Your task to perform on an android device: set the timer Image 0: 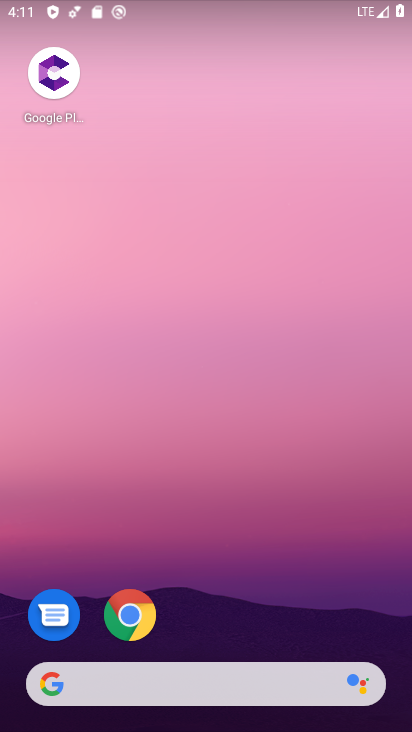
Step 0: drag from (261, 480) to (247, 36)
Your task to perform on an android device: set the timer Image 1: 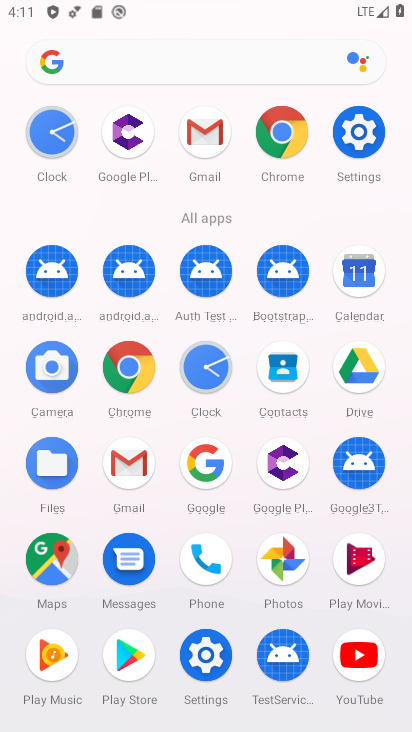
Step 1: click (205, 364)
Your task to perform on an android device: set the timer Image 2: 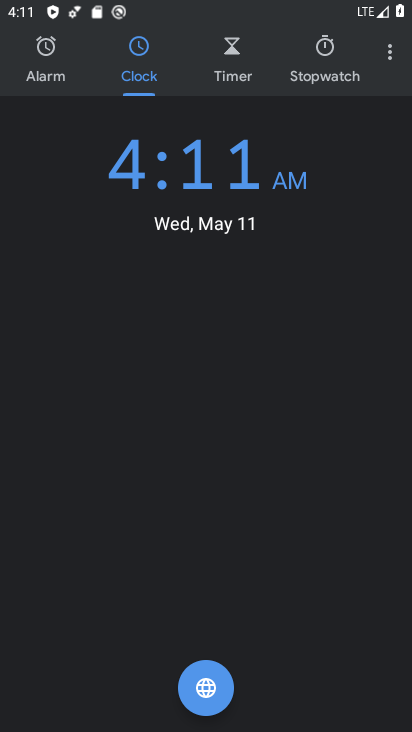
Step 2: drag from (387, 50) to (292, 97)
Your task to perform on an android device: set the timer Image 3: 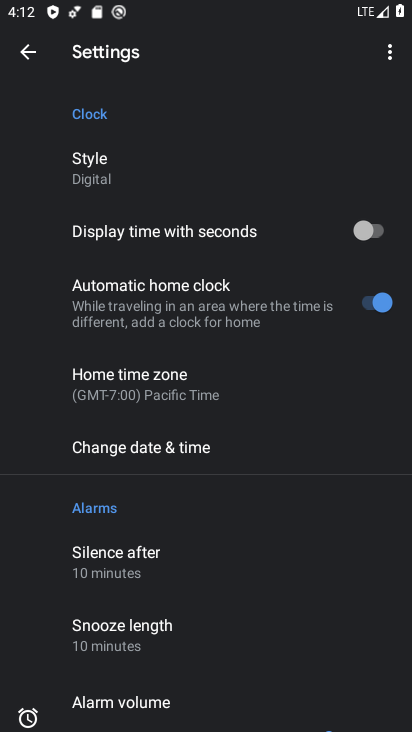
Step 3: drag from (257, 510) to (239, 125)
Your task to perform on an android device: set the timer Image 4: 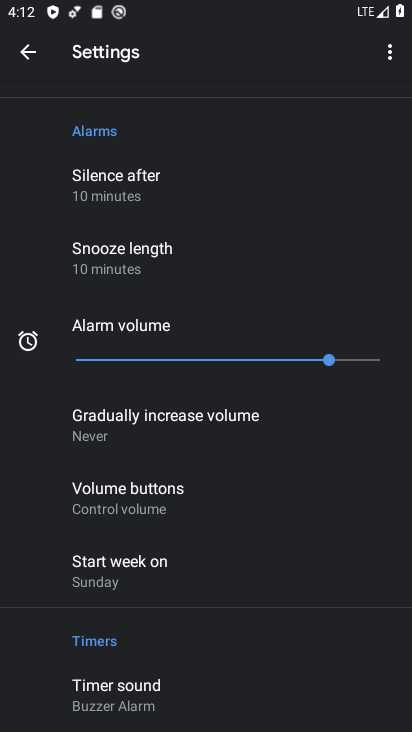
Step 4: drag from (255, 493) to (277, 77)
Your task to perform on an android device: set the timer Image 5: 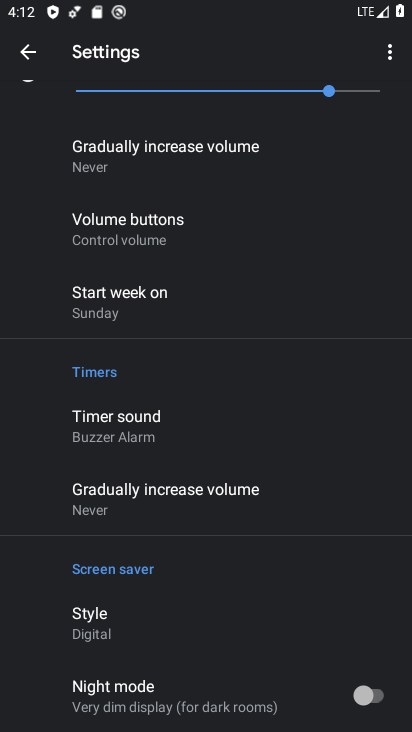
Step 5: drag from (253, 524) to (274, 94)
Your task to perform on an android device: set the timer Image 6: 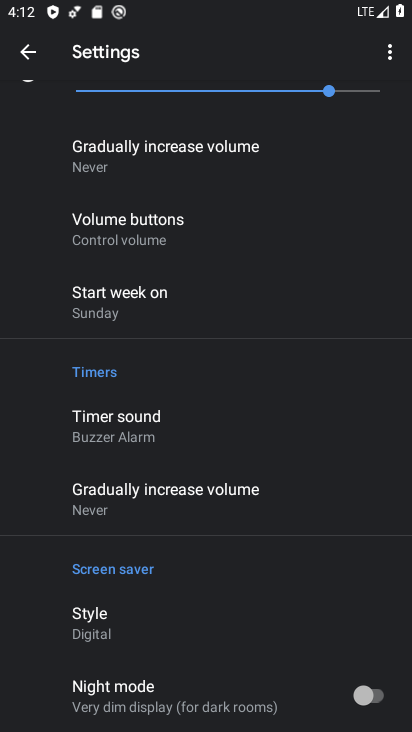
Step 6: drag from (275, 222) to (273, 579)
Your task to perform on an android device: set the timer Image 7: 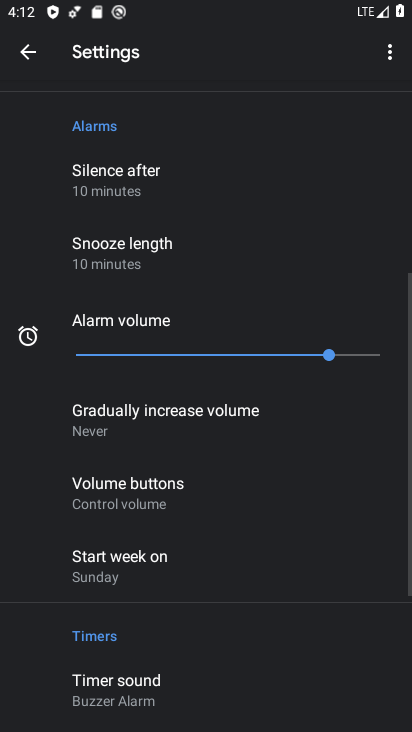
Step 7: drag from (259, 190) to (280, 574)
Your task to perform on an android device: set the timer Image 8: 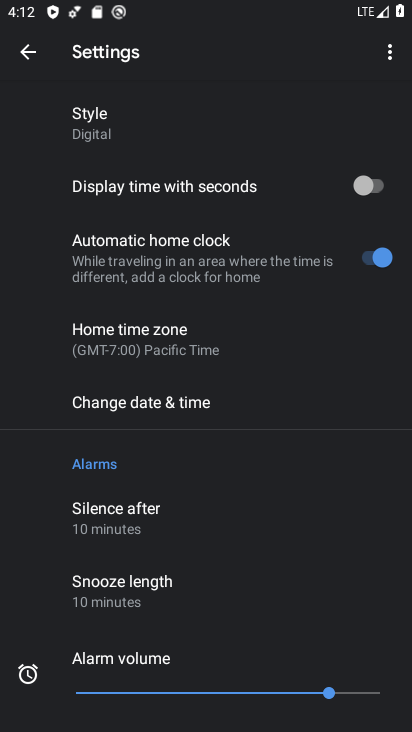
Step 8: click (205, 404)
Your task to perform on an android device: set the timer Image 9: 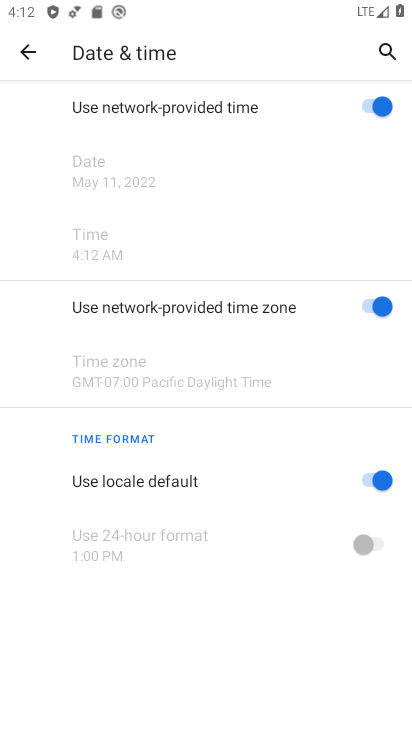
Step 9: click (42, 47)
Your task to perform on an android device: set the timer Image 10: 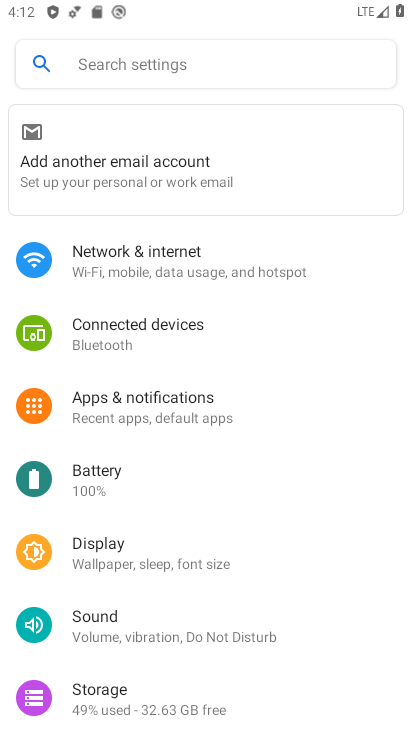
Step 10: press back button
Your task to perform on an android device: set the timer Image 11: 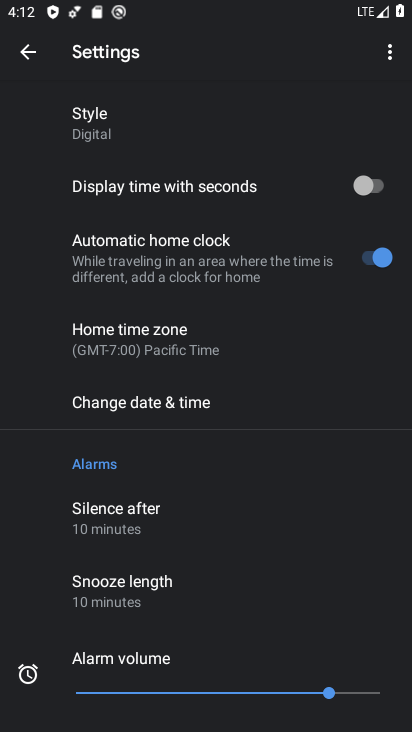
Step 11: press back button
Your task to perform on an android device: set the timer Image 12: 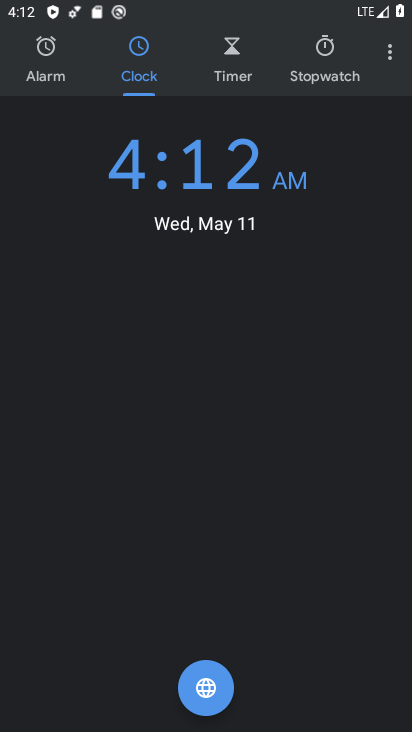
Step 12: click (246, 66)
Your task to perform on an android device: set the timer Image 13: 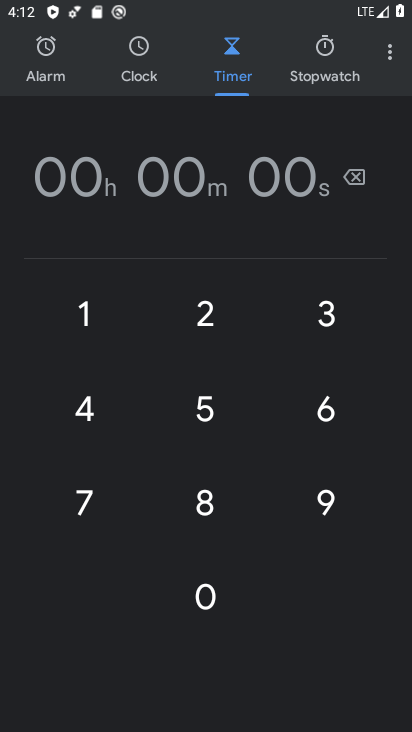
Step 13: click (201, 313)
Your task to perform on an android device: set the timer Image 14: 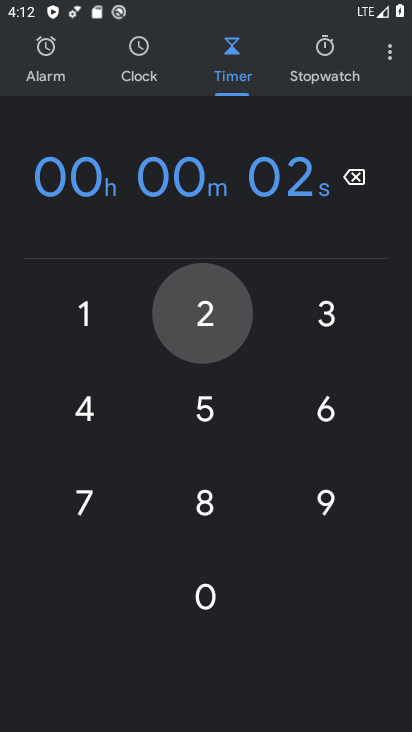
Step 14: click (90, 409)
Your task to perform on an android device: set the timer Image 15: 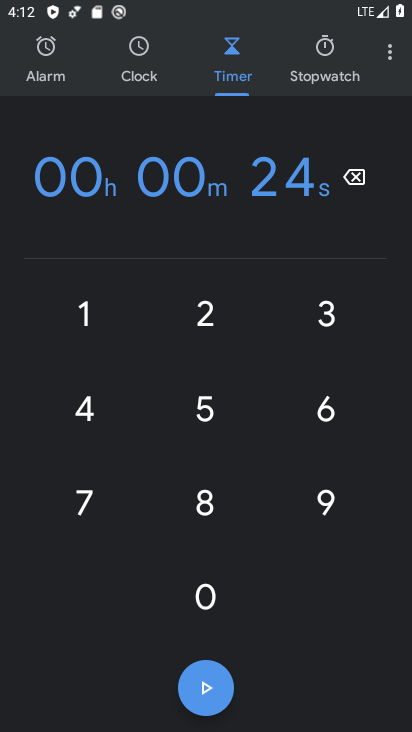
Step 15: click (211, 411)
Your task to perform on an android device: set the timer Image 16: 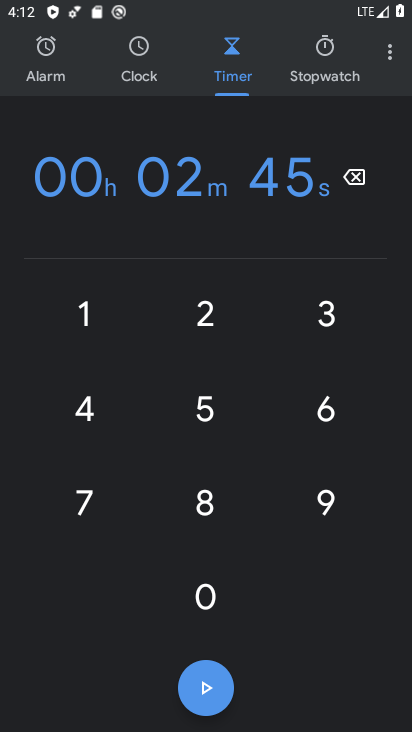
Step 16: click (334, 399)
Your task to perform on an android device: set the timer Image 17: 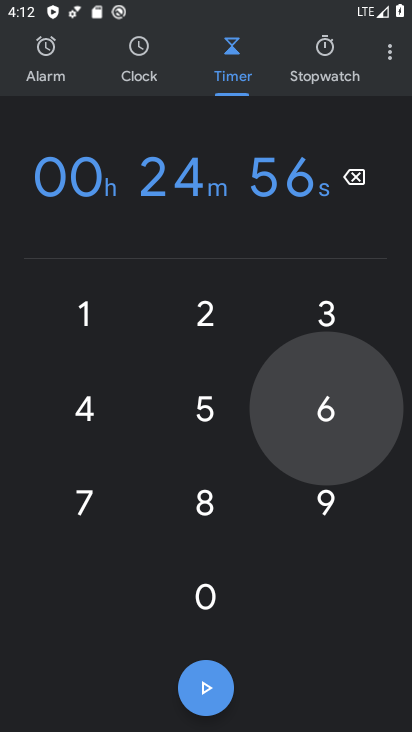
Step 17: click (327, 493)
Your task to perform on an android device: set the timer Image 18: 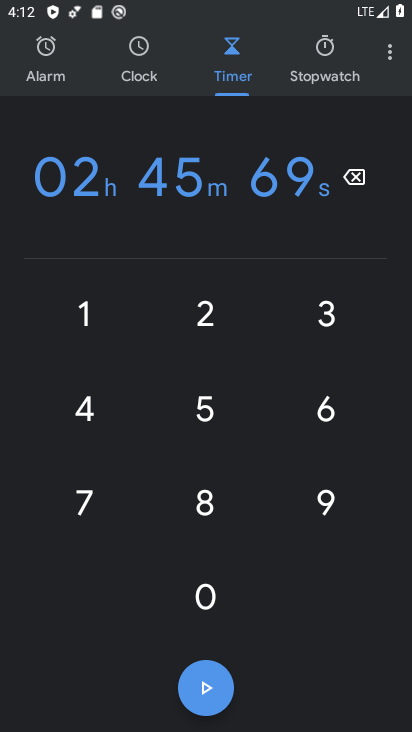
Step 18: click (223, 684)
Your task to perform on an android device: set the timer Image 19: 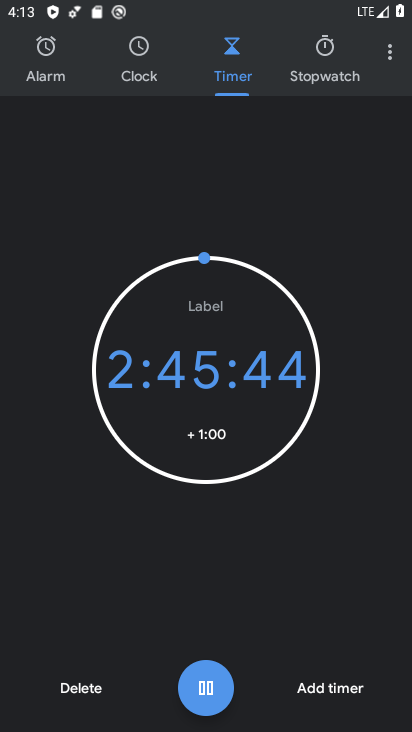
Step 19: task complete